Your task to perform on an android device: Search for seafood restaurants on Google Maps Image 0: 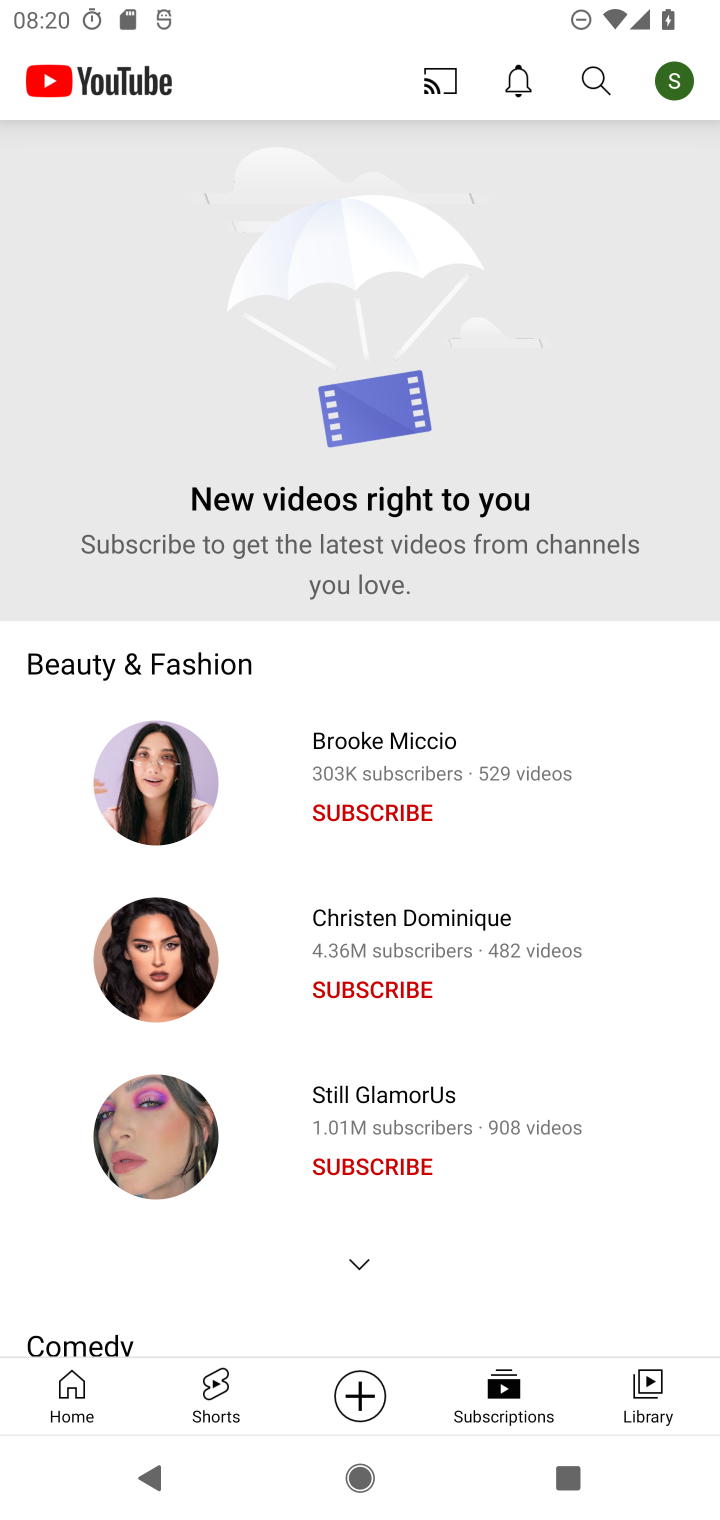
Step 0: press home button
Your task to perform on an android device: Search for seafood restaurants on Google Maps Image 1: 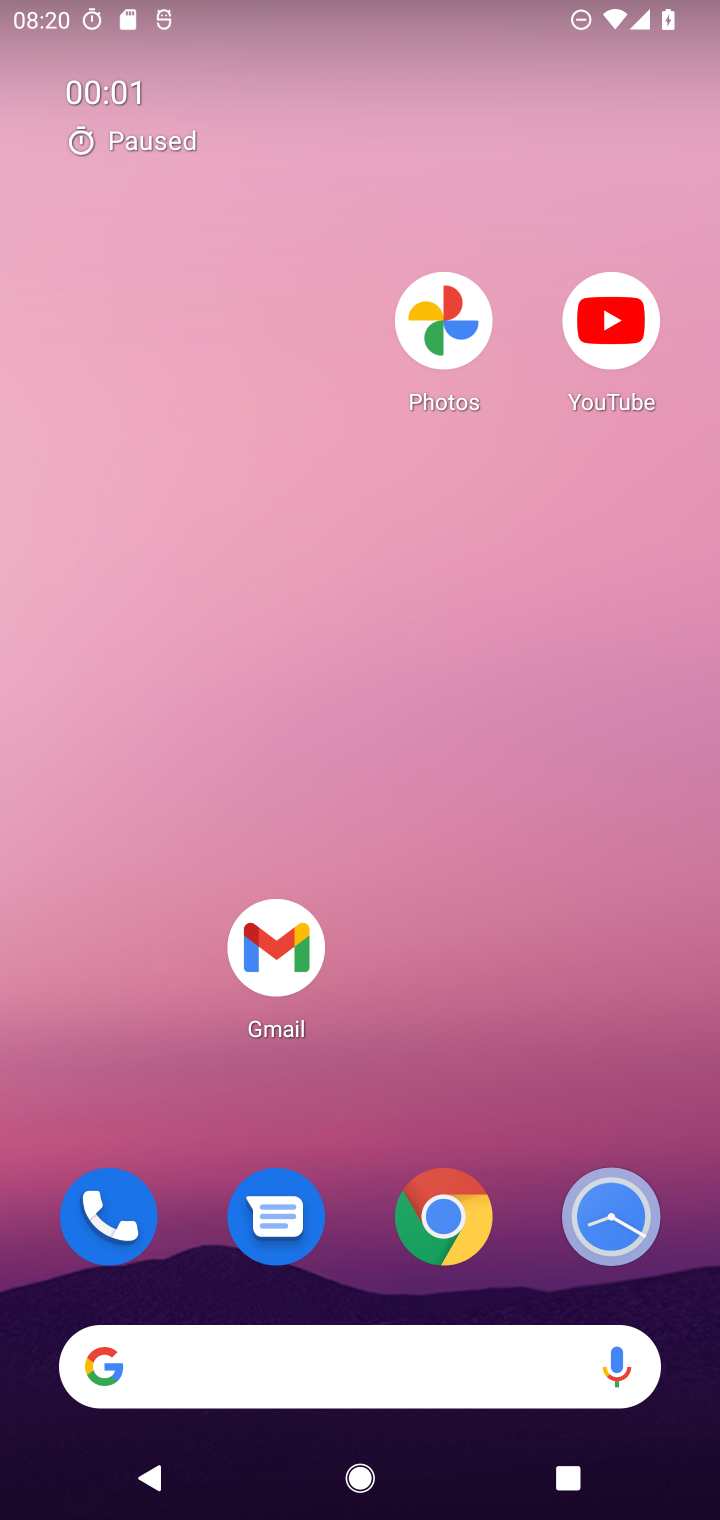
Step 1: drag from (515, 1083) to (474, 222)
Your task to perform on an android device: Search for seafood restaurants on Google Maps Image 2: 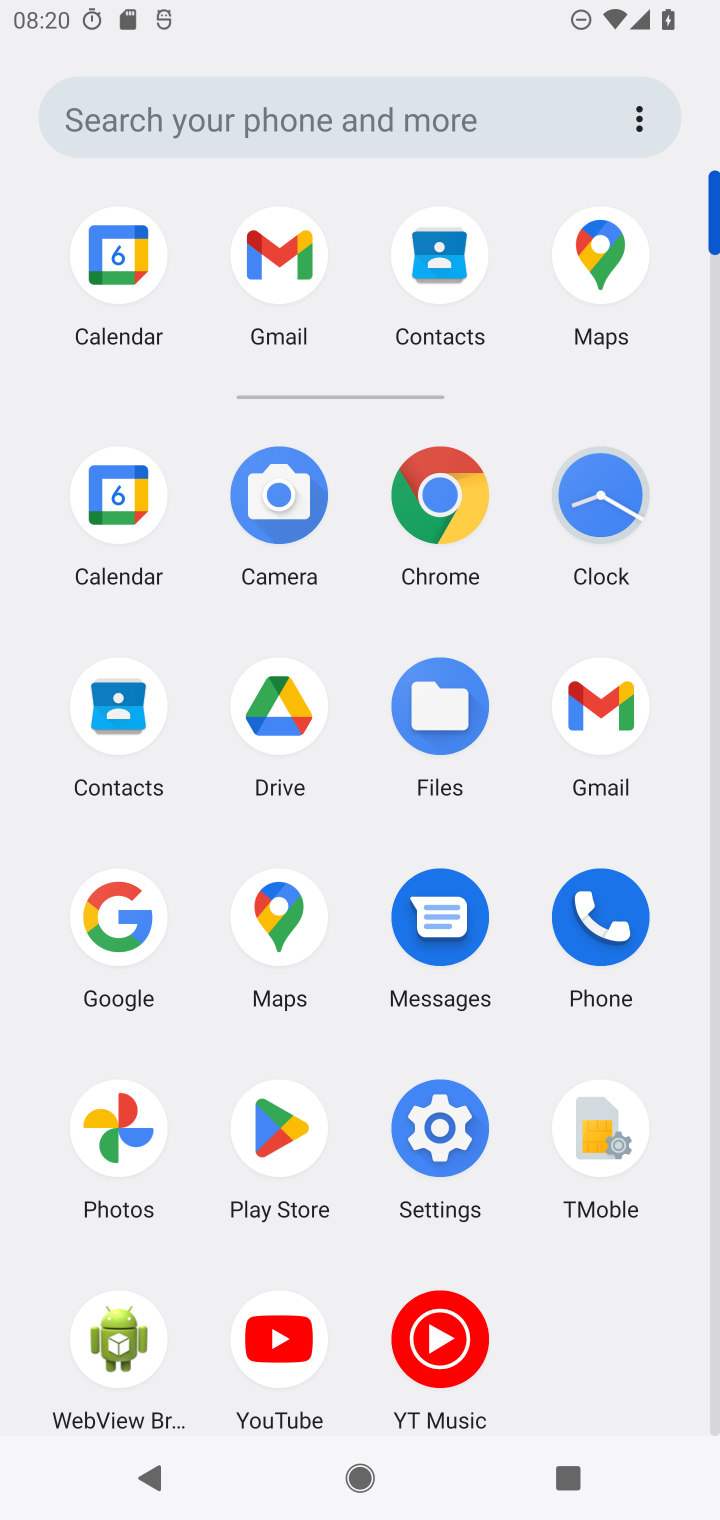
Step 2: click (280, 908)
Your task to perform on an android device: Search for seafood restaurants on Google Maps Image 3: 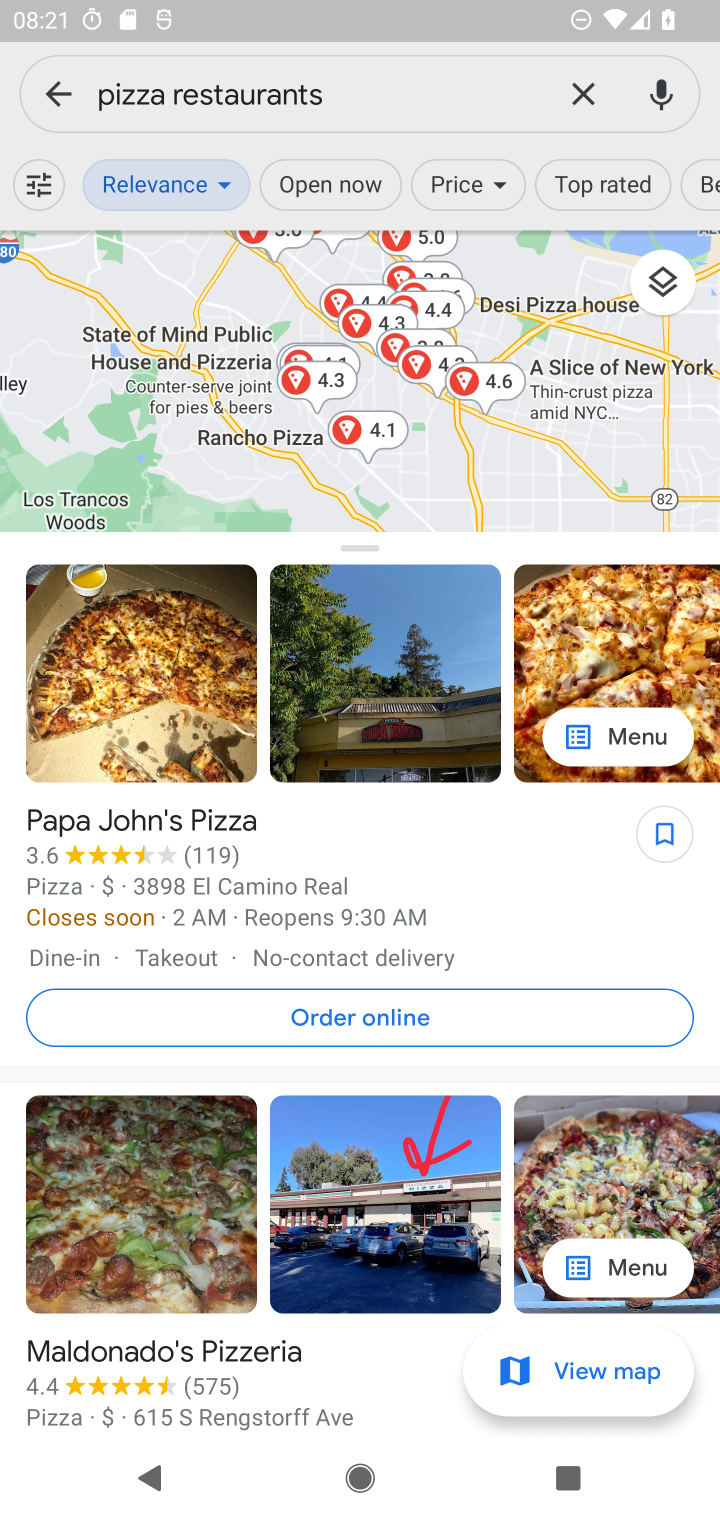
Step 3: click (574, 91)
Your task to perform on an android device: Search for seafood restaurants on Google Maps Image 4: 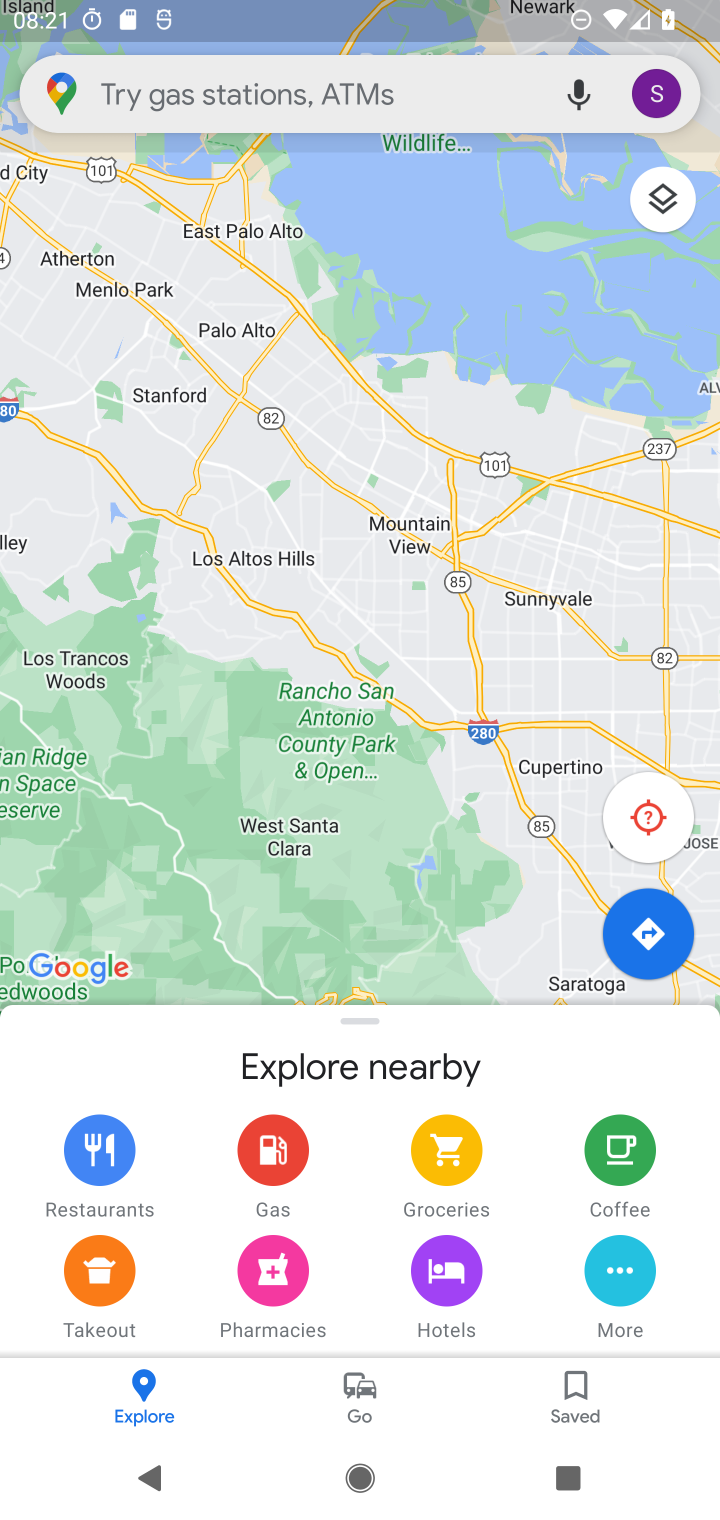
Step 4: click (306, 97)
Your task to perform on an android device: Search for seafood restaurants on Google Maps Image 5: 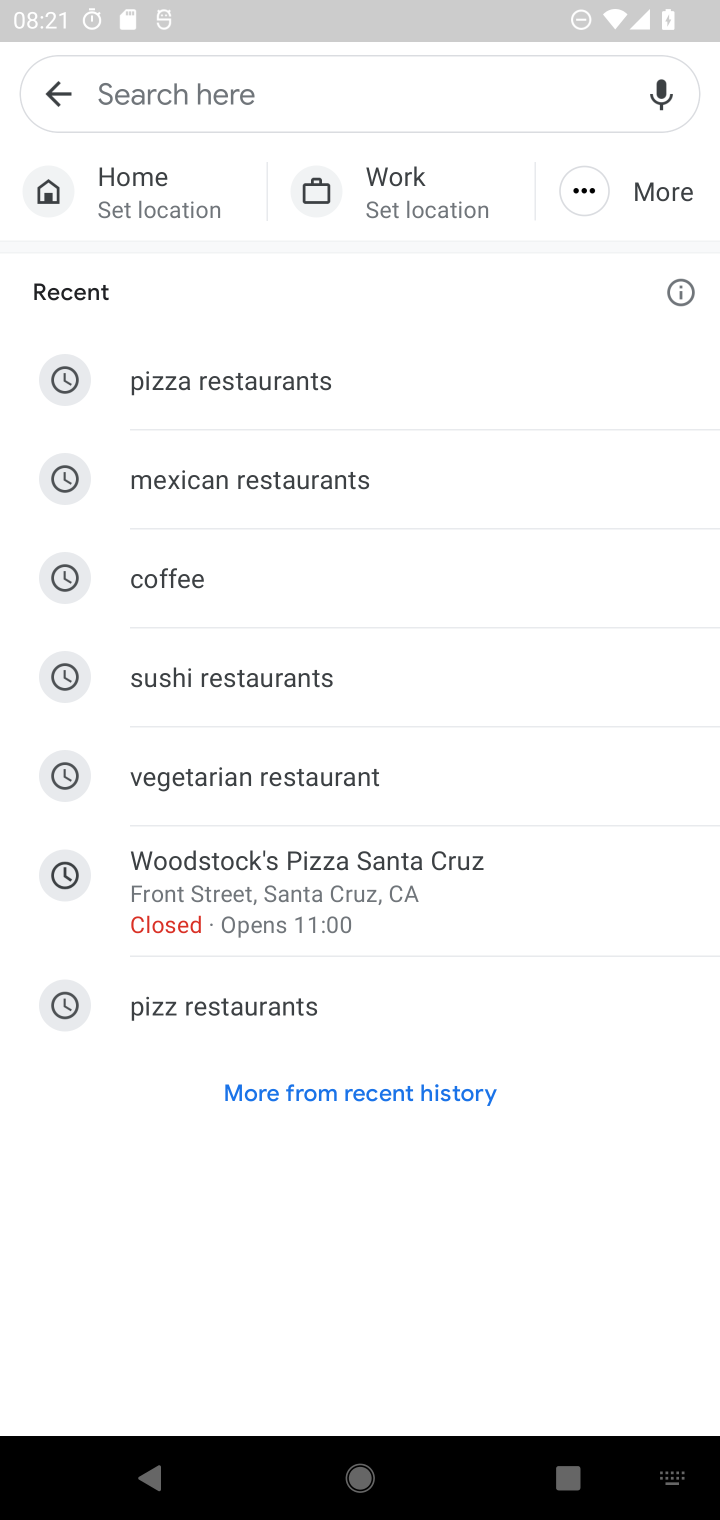
Step 5: type "seafood restaurants"
Your task to perform on an android device: Search for seafood restaurants on Google Maps Image 6: 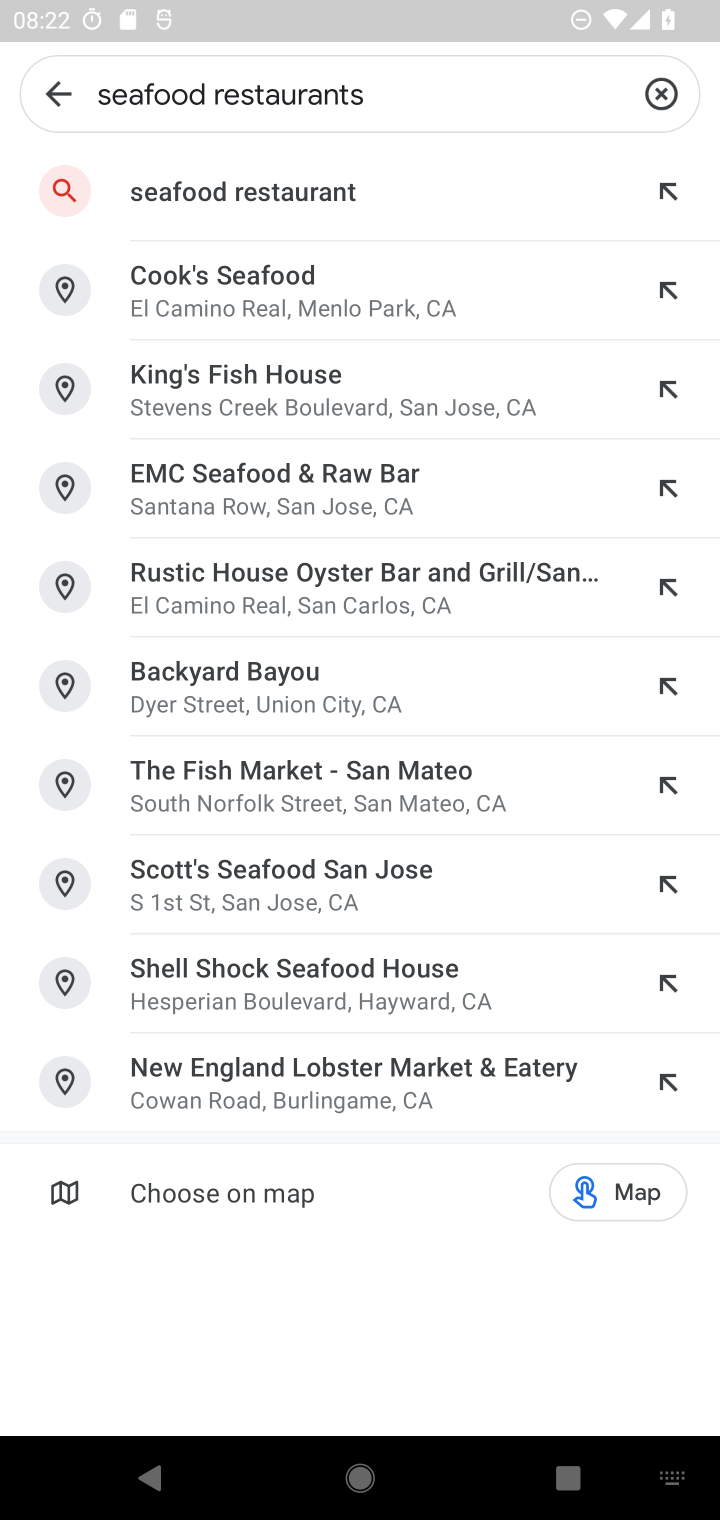
Step 6: press enter
Your task to perform on an android device: Search for seafood restaurants on Google Maps Image 7: 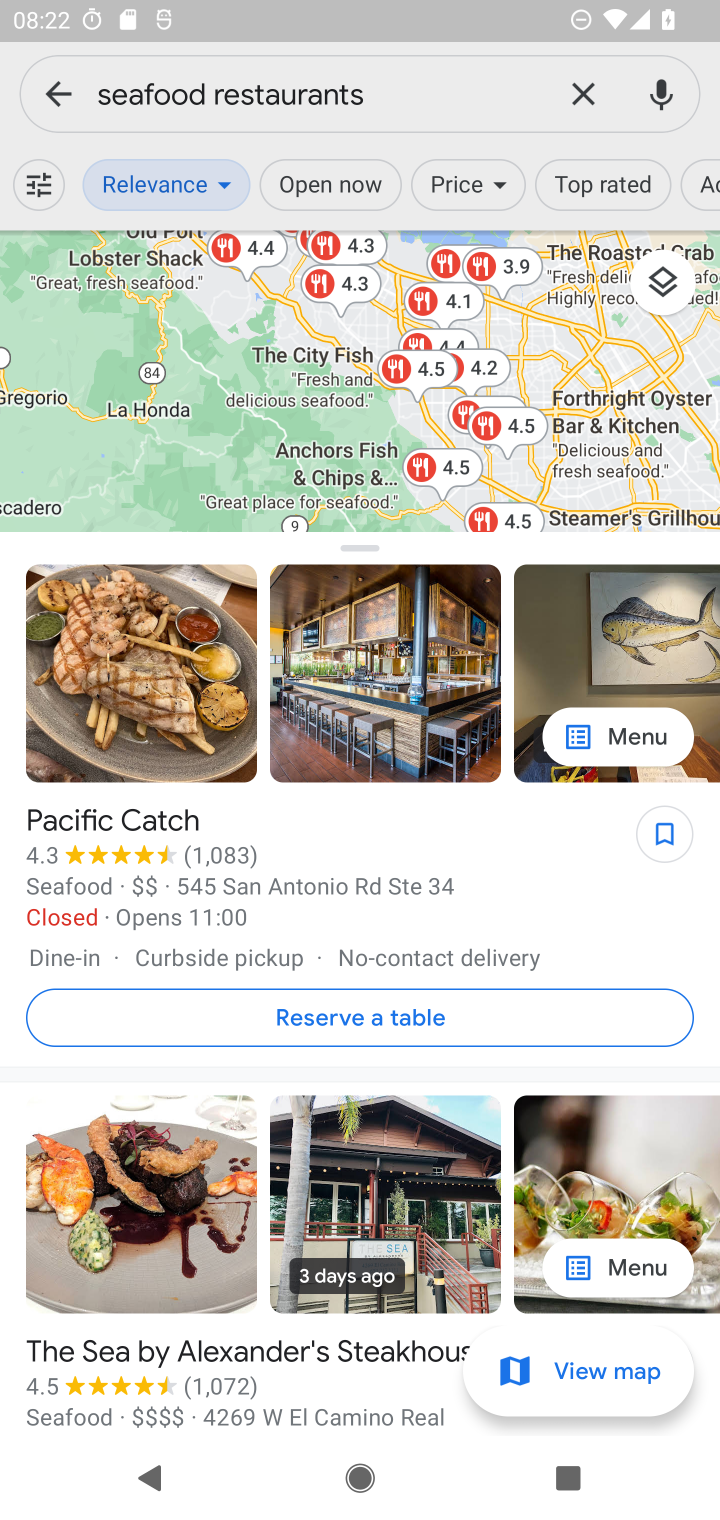
Step 7: task complete